Your task to perform on an android device: change timer sound Image 0: 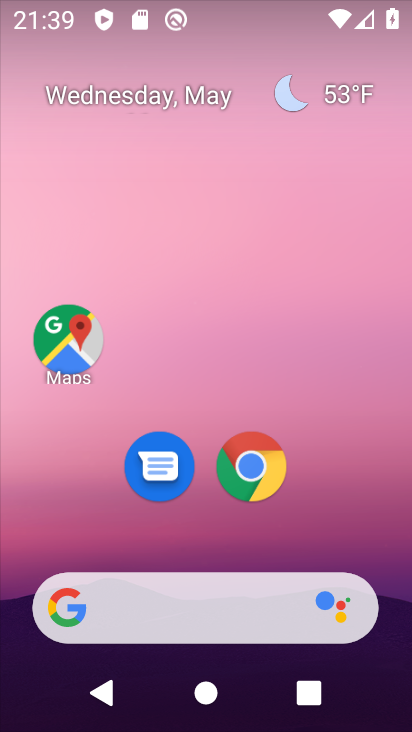
Step 0: click (323, 190)
Your task to perform on an android device: change timer sound Image 1: 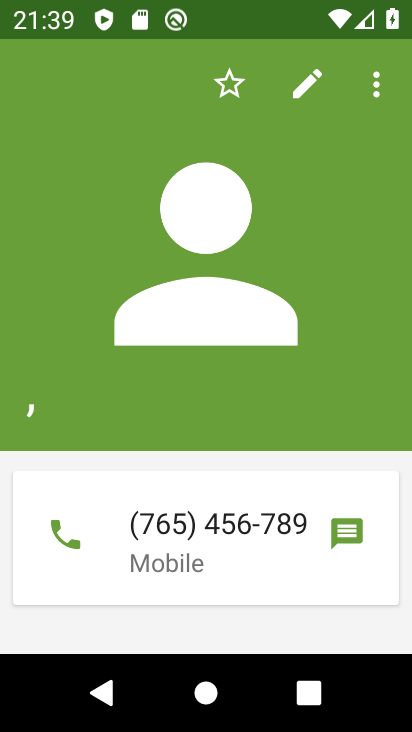
Step 1: press home button
Your task to perform on an android device: change timer sound Image 2: 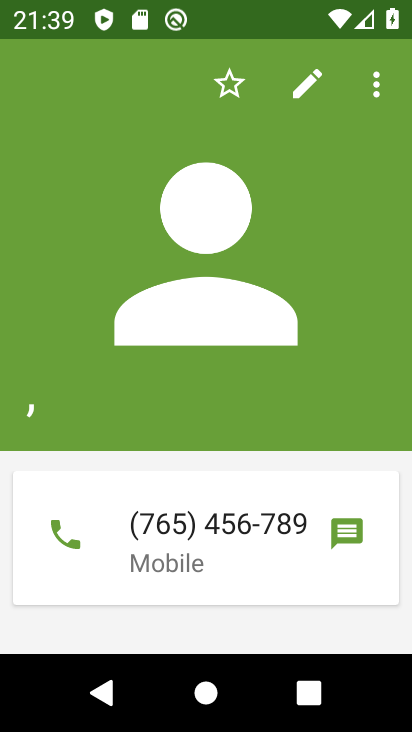
Step 2: press home button
Your task to perform on an android device: change timer sound Image 3: 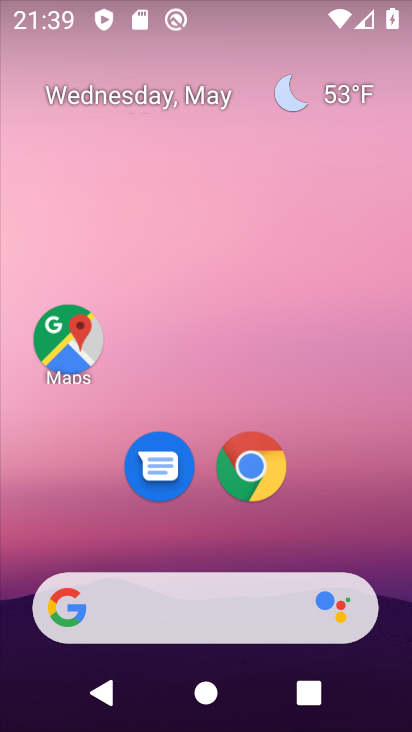
Step 3: drag from (129, 615) to (226, 44)
Your task to perform on an android device: change timer sound Image 4: 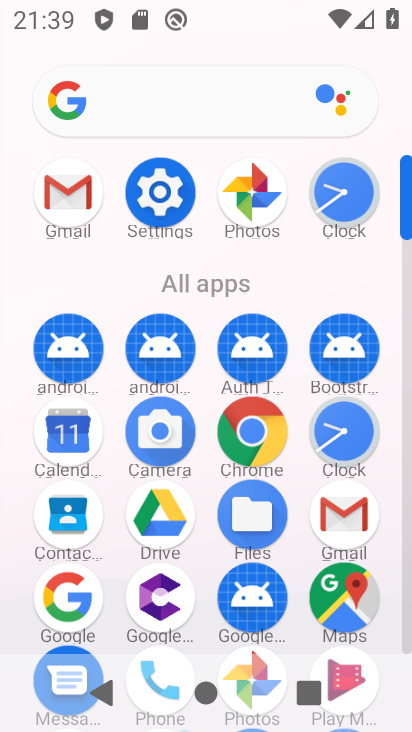
Step 4: click (169, 181)
Your task to perform on an android device: change timer sound Image 5: 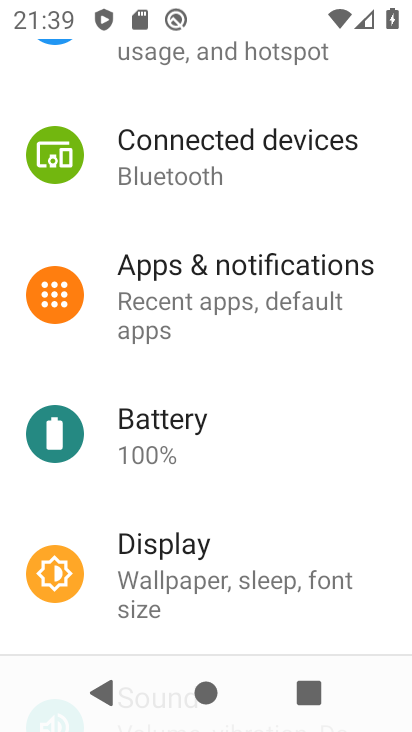
Step 5: press home button
Your task to perform on an android device: change timer sound Image 6: 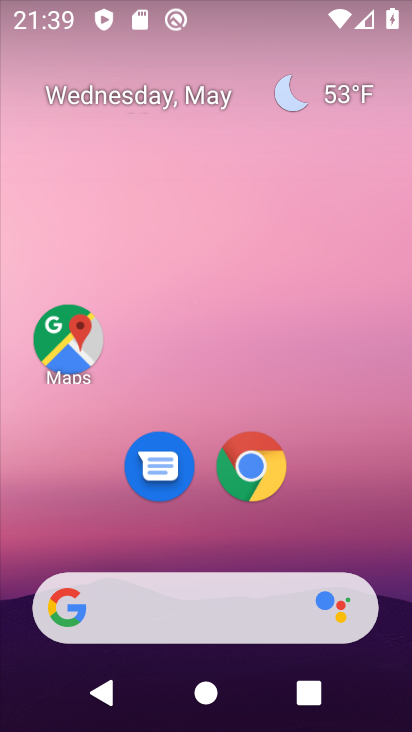
Step 6: drag from (218, 591) to (326, 105)
Your task to perform on an android device: change timer sound Image 7: 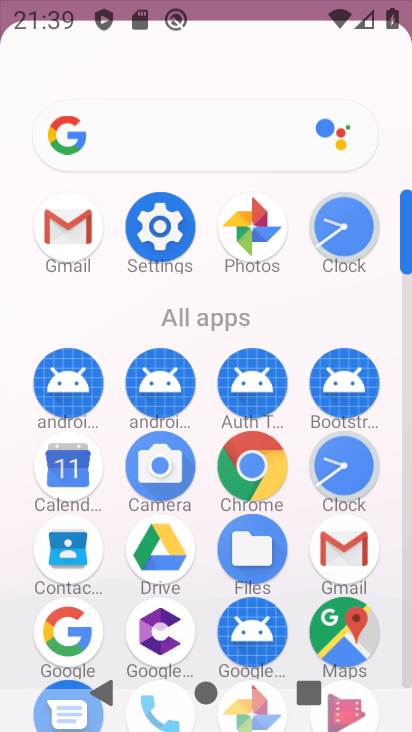
Step 7: drag from (222, 347) to (274, 56)
Your task to perform on an android device: change timer sound Image 8: 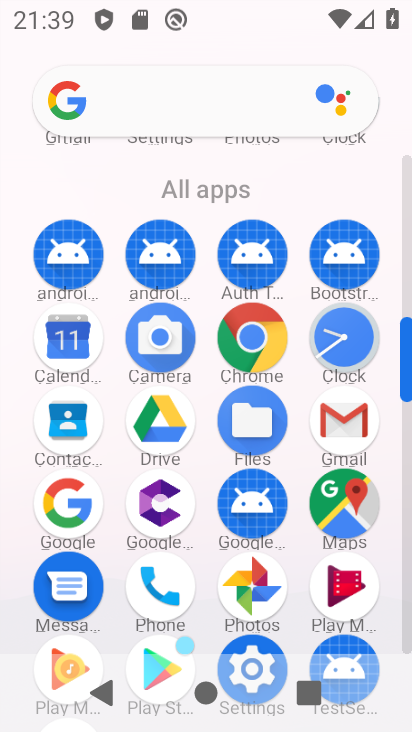
Step 8: click (338, 331)
Your task to perform on an android device: change timer sound Image 9: 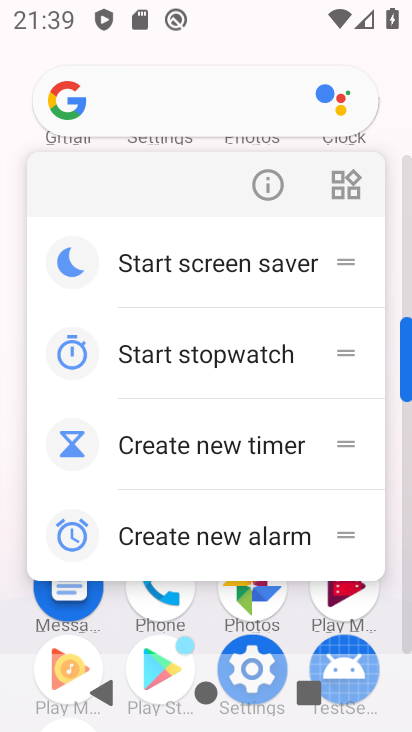
Step 9: click (265, 189)
Your task to perform on an android device: change timer sound Image 10: 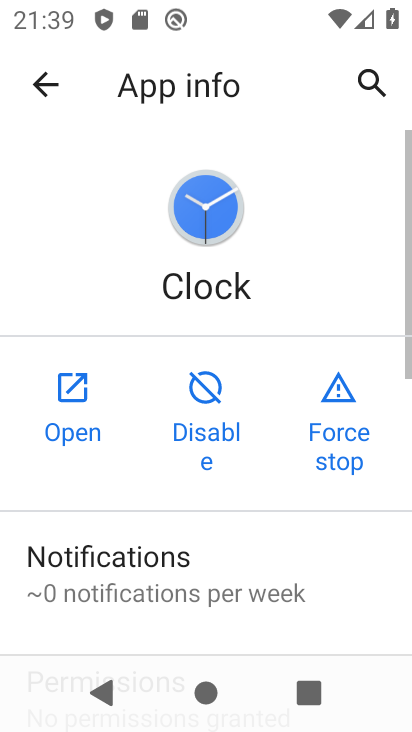
Step 10: click (68, 429)
Your task to perform on an android device: change timer sound Image 11: 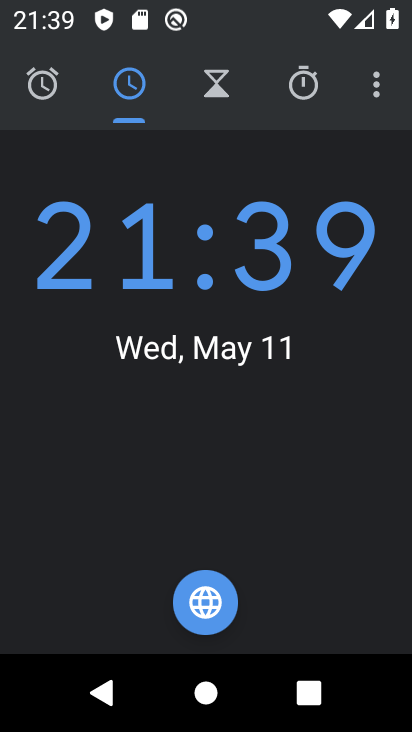
Step 11: click (221, 93)
Your task to perform on an android device: change timer sound Image 12: 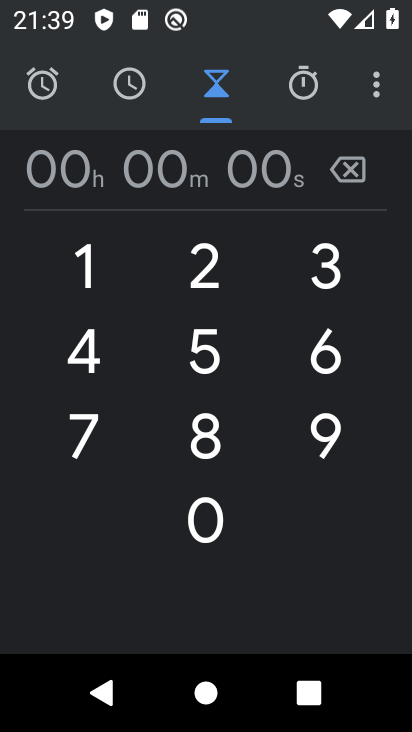
Step 12: click (191, 295)
Your task to perform on an android device: change timer sound Image 13: 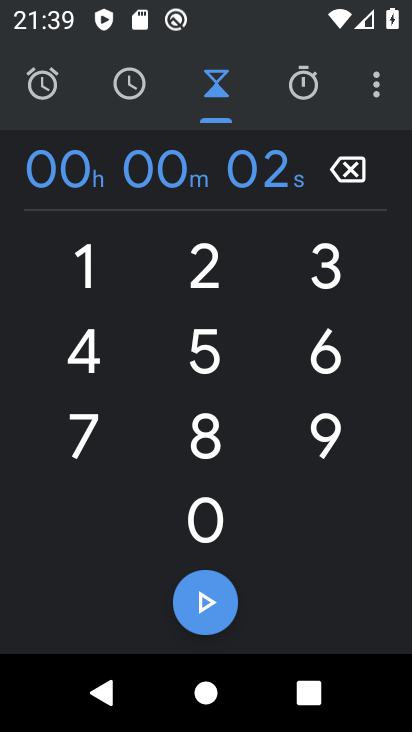
Step 13: click (217, 602)
Your task to perform on an android device: change timer sound Image 14: 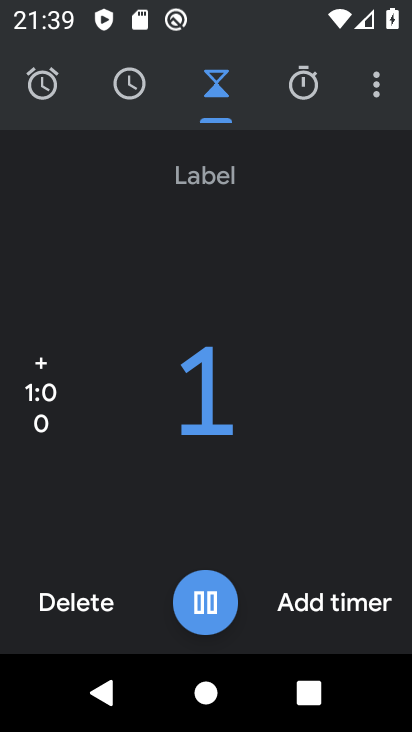
Step 14: task complete